Your task to perform on an android device: Set the phone to "Do not disturb". Image 0: 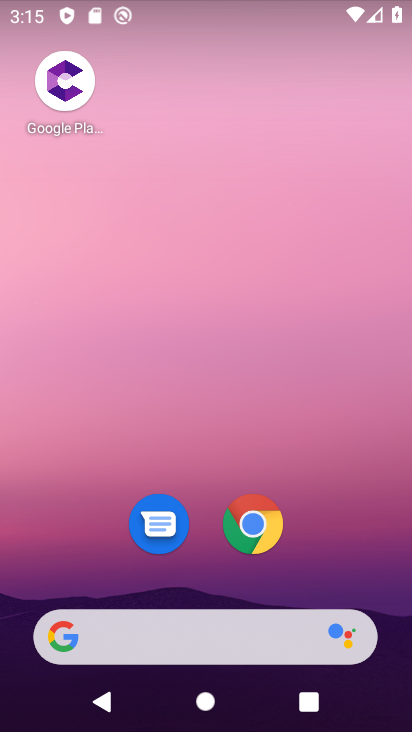
Step 0: drag from (381, 397) to (389, 6)
Your task to perform on an android device: Set the phone to "Do not disturb". Image 1: 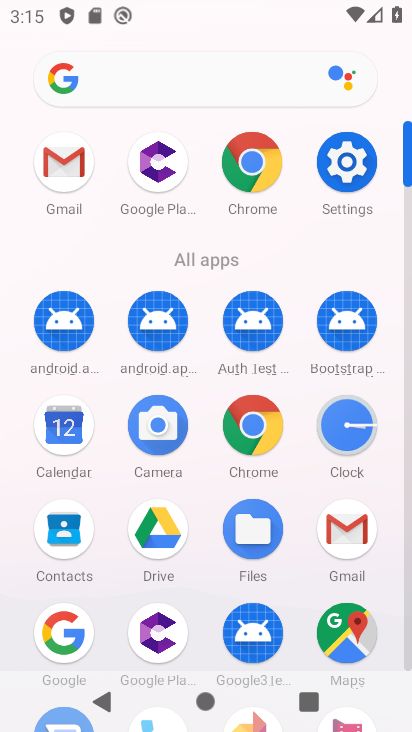
Step 1: click (356, 170)
Your task to perform on an android device: Set the phone to "Do not disturb". Image 2: 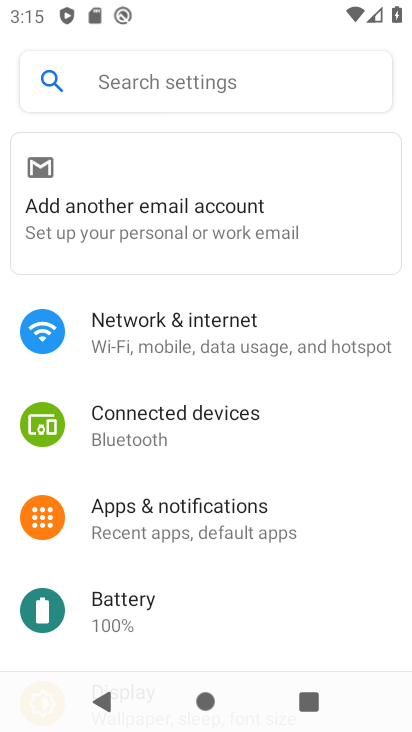
Step 2: drag from (207, 595) to (276, 139)
Your task to perform on an android device: Set the phone to "Do not disturb". Image 3: 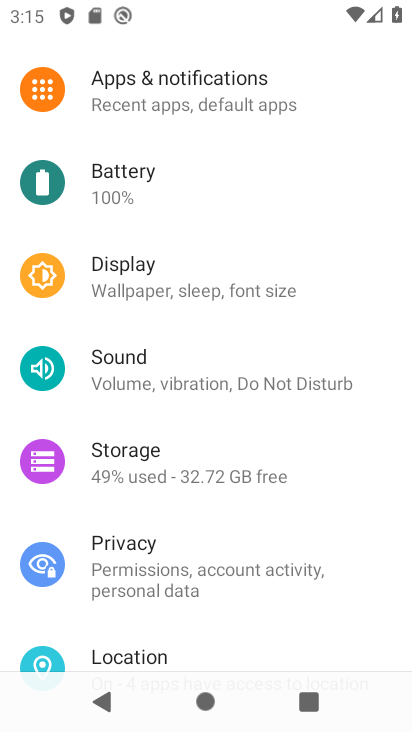
Step 3: click (155, 368)
Your task to perform on an android device: Set the phone to "Do not disturb". Image 4: 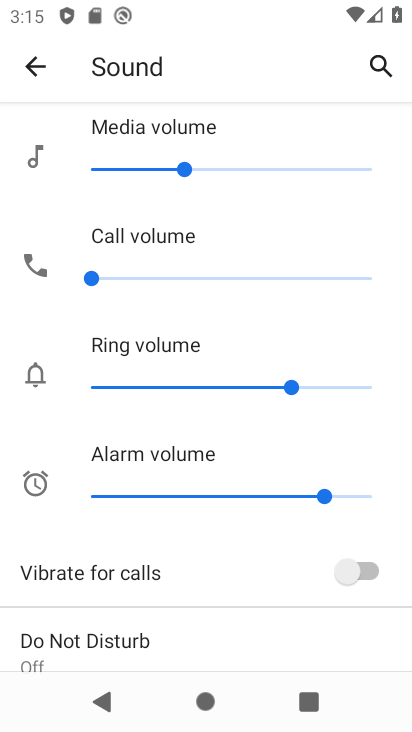
Step 4: drag from (160, 580) to (185, 334)
Your task to perform on an android device: Set the phone to "Do not disturb". Image 5: 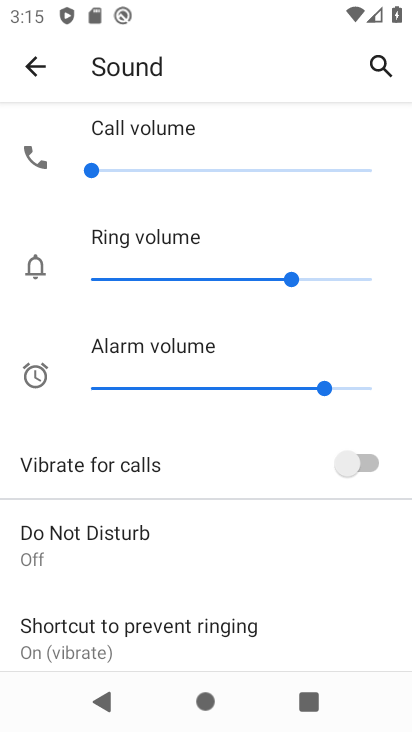
Step 5: click (129, 525)
Your task to perform on an android device: Set the phone to "Do not disturb". Image 6: 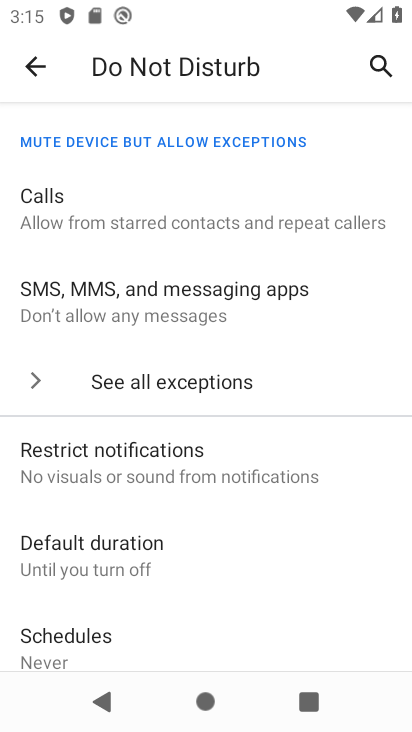
Step 6: drag from (217, 541) to (257, 283)
Your task to perform on an android device: Set the phone to "Do not disturb". Image 7: 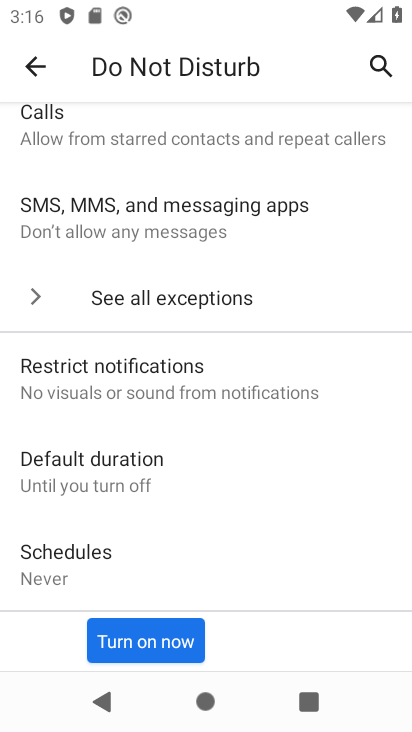
Step 7: click (175, 640)
Your task to perform on an android device: Set the phone to "Do not disturb". Image 8: 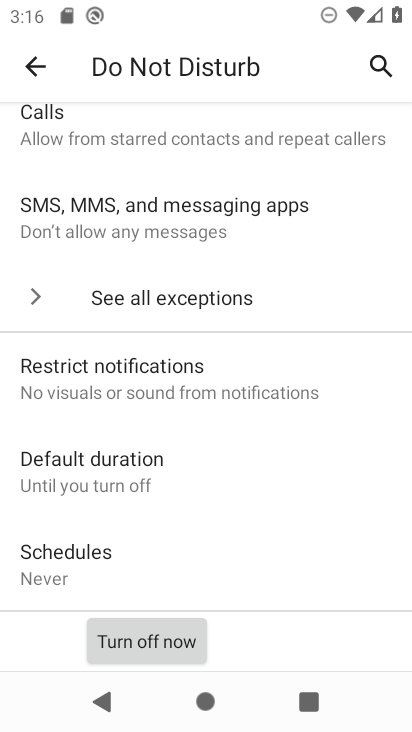
Step 8: click (41, 63)
Your task to perform on an android device: Set the phone to "Do not disturb". Image 9: 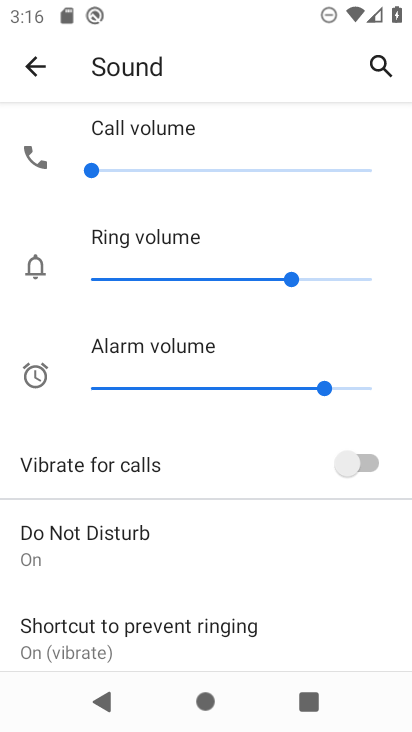
Step 9: task complete